Your task to perform on an android device: delete browsing data in the chrome app Image 0: 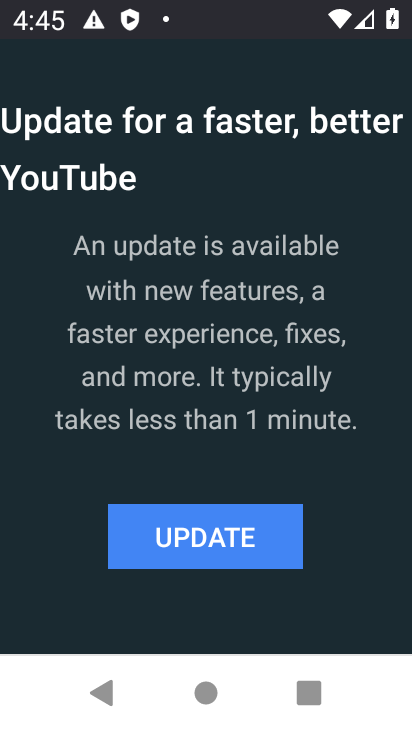
Step 0: press home button
Your task to perform on an android device: delete browsing data in the chrome app Image 1: 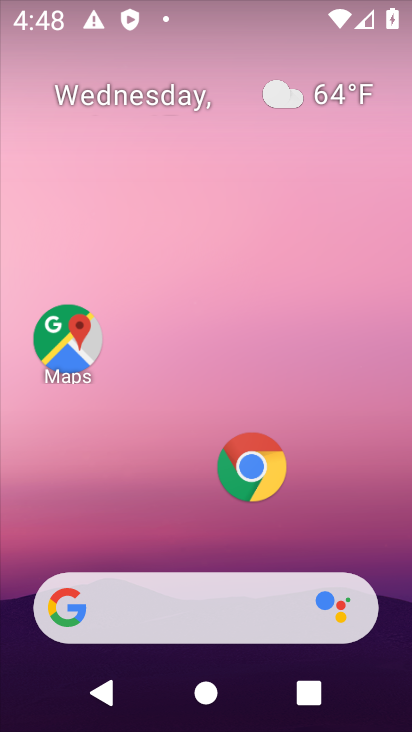
Step 1: drag from (153, 454) to (169, 175)
Your task to perform on an android device: delete browsing data in the chrome app Image 2: 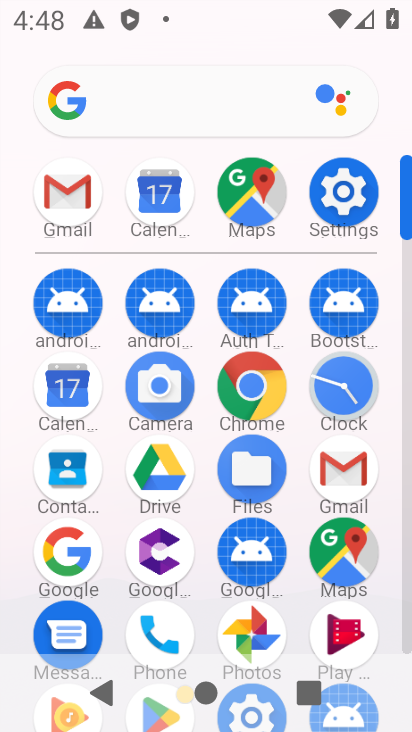
Step 2: click (371, 199)
Your task to perform on an android device: delete browsing data in the chrome app Image 3: 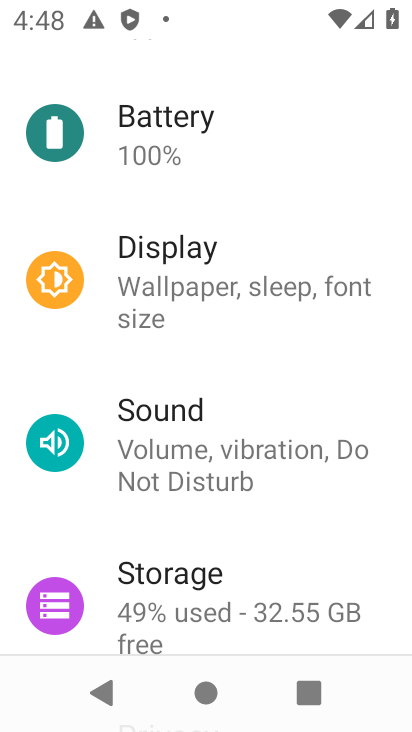
Step 3: task complete